Your task to perform on an android device: Open Reddit.com Image 0: 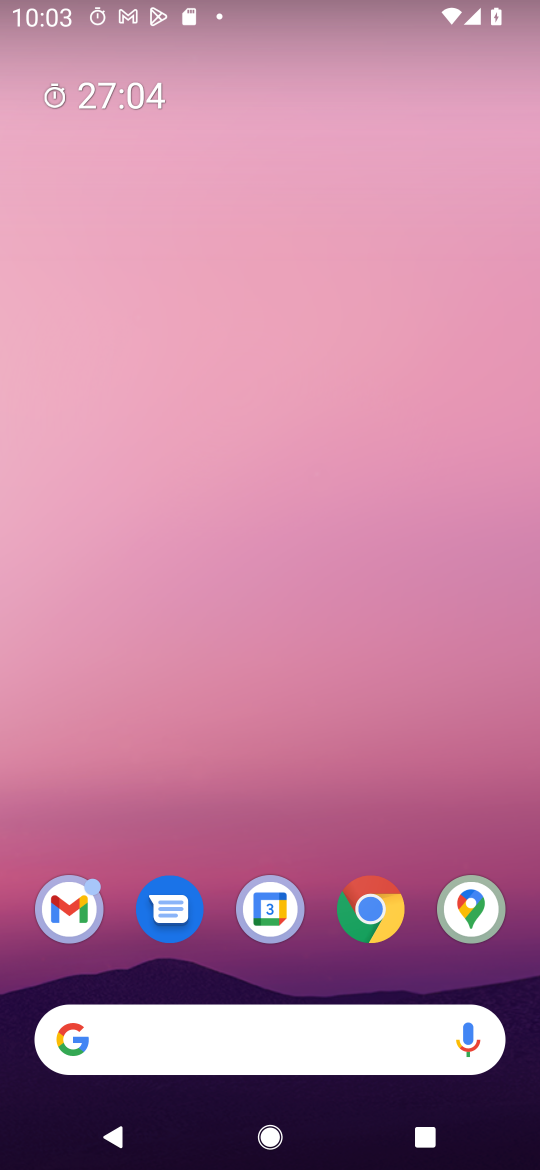
Step 0: press home button
Your task to perform on an android device: Open Reddit.com Image 1: 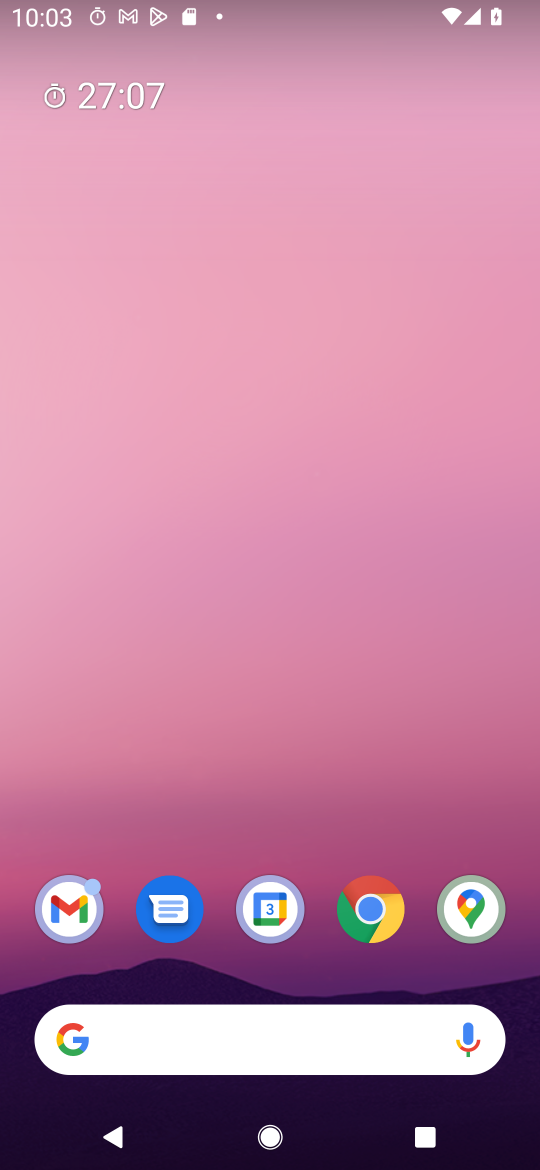
Step 1: drag from (410, 827) to (426, 176)
Your task to perform on an android device: Open Reddit.com Image 2: 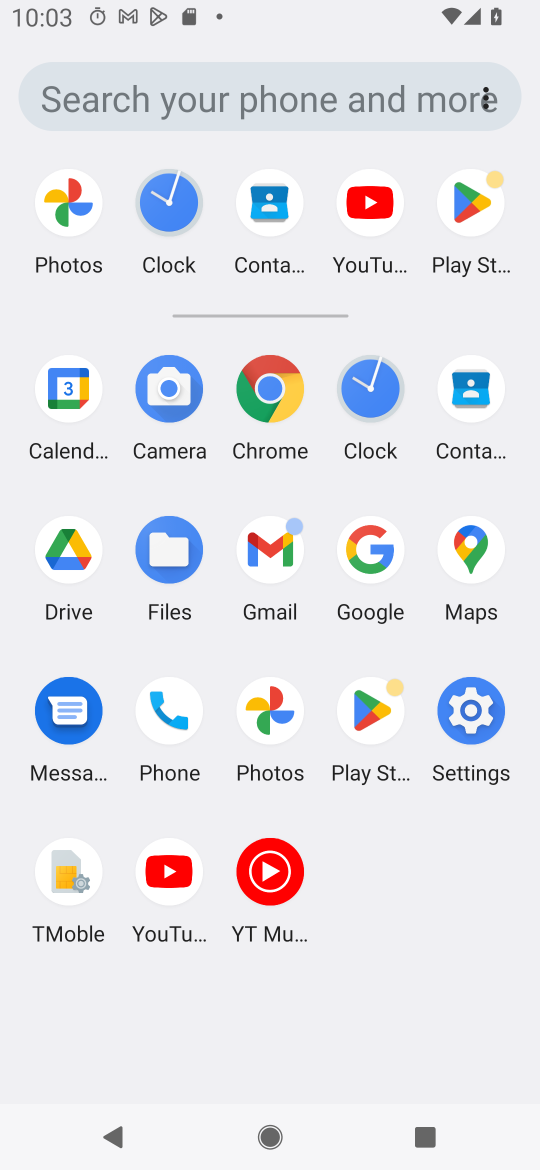
Step 2: click (262, 395)
Your task to perform on an android device: Open Reddit.com Image 3: 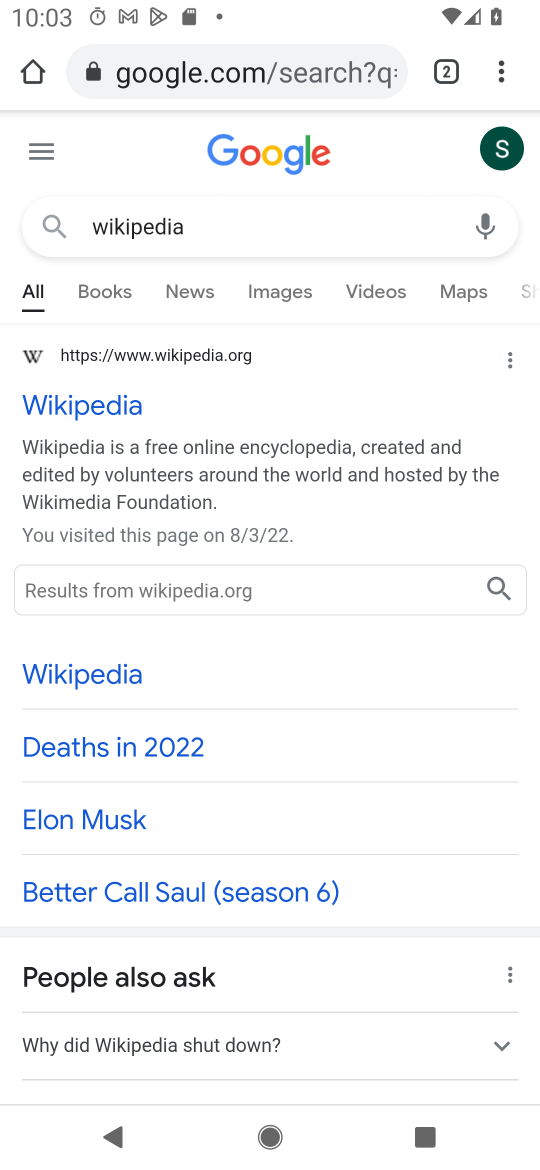
Step 3: click (320, 72)
Your task to perform on an android device: Open Reddit.com Image 4: 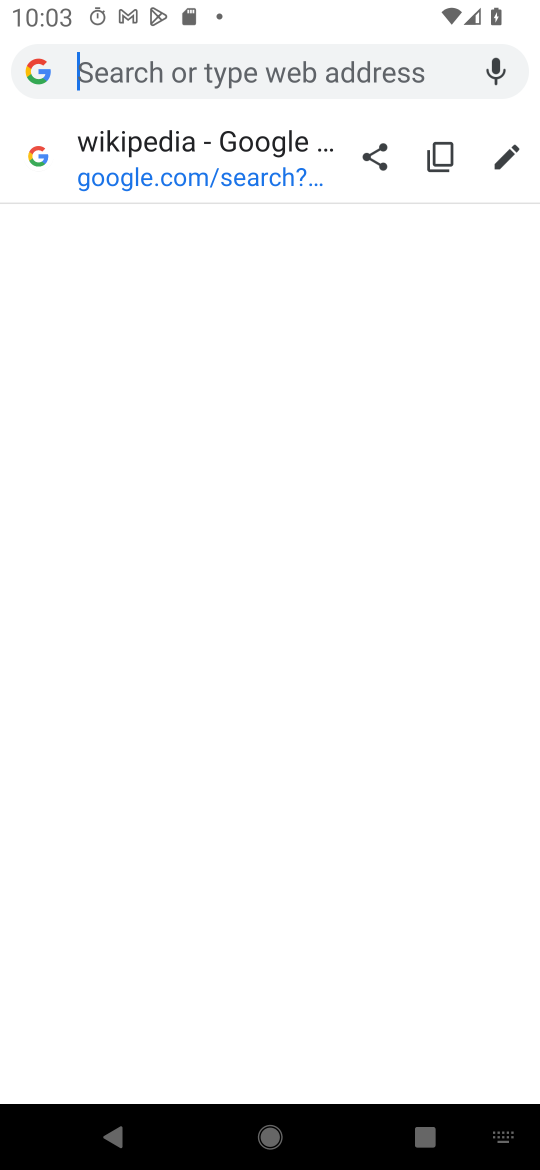
Step 4: type "reddit.com"
Your task to perform on an android device: Open Reddit.com Image 5: 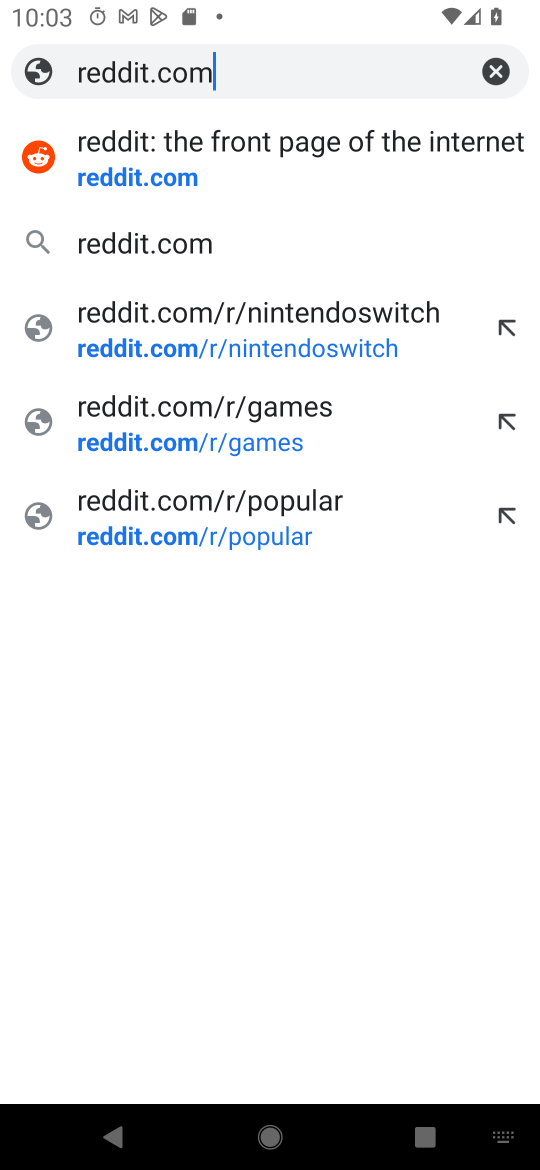
Step 5: click (267, 193)
Your task to perform on an android device: Open Reddit.com Image 6: 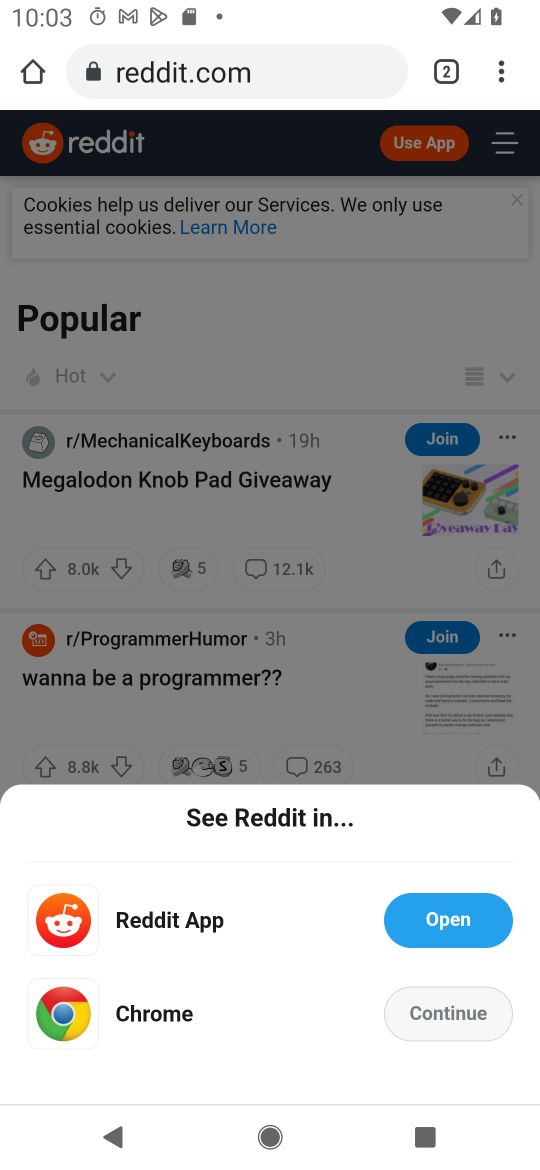
Step 6: task complete